Your task to perform on an android device: add a contact in the contacts app Image 0: 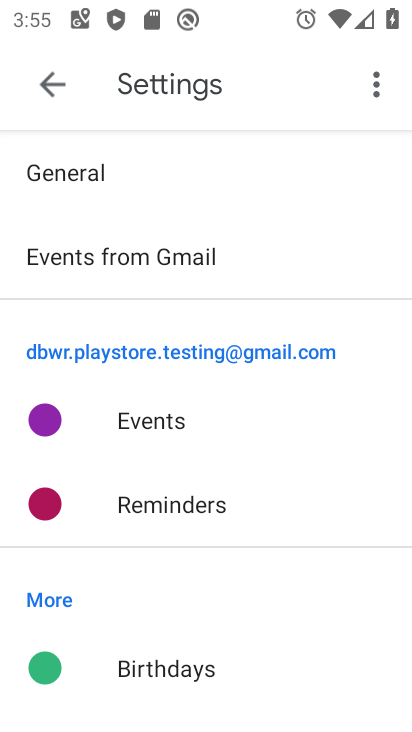
Step 0: press home button
Your task to perform on an android device: add a contact in the contacts app Image 1: 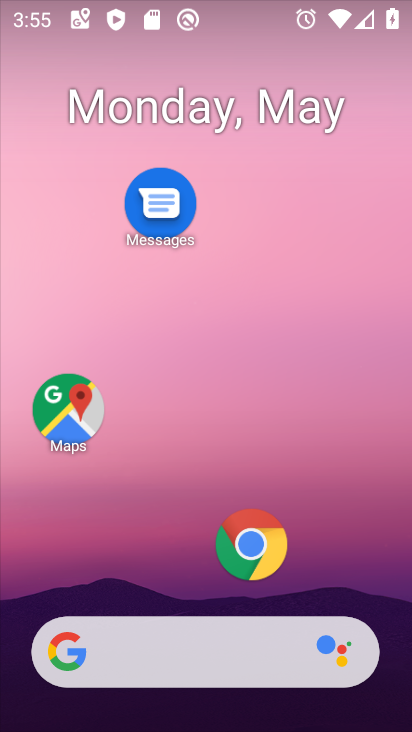
Step 1: drag from (190, 576) to (202, 149)
Your task to perform on an android device: add a contact in the contacts app Image 2: 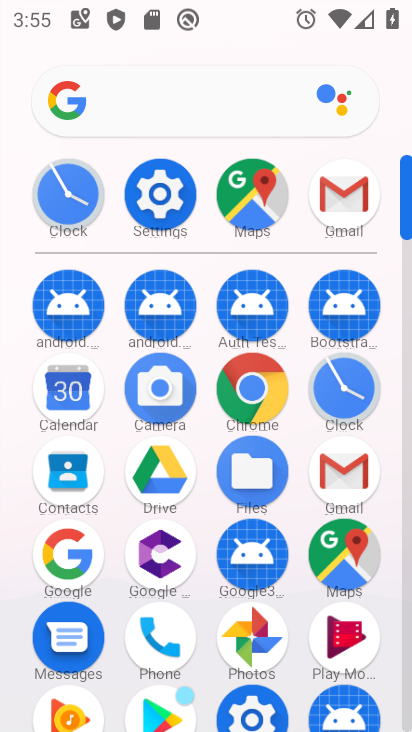
Step 2: click (69, 469)
Your task to perform on an android device: add a contact in the contacts app Image 3: 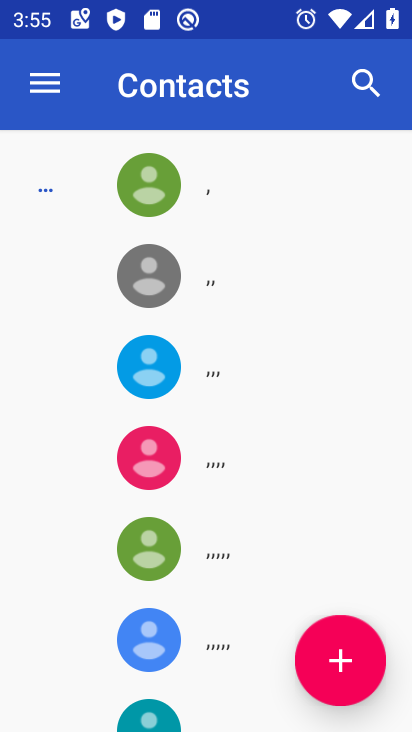
Step 3: click (308, 677)
Your task to perform on an android device: add a contact in the contacts app Image 4: 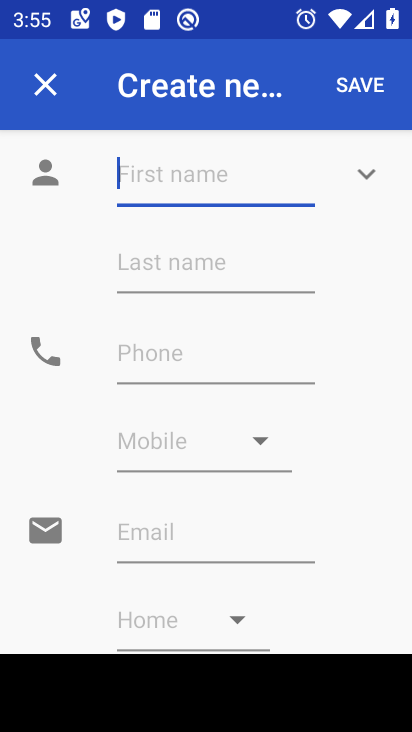
Step 4: type "fdbfdb"
Your task to perform on an android device: add a contact in the contacts app Image 5: 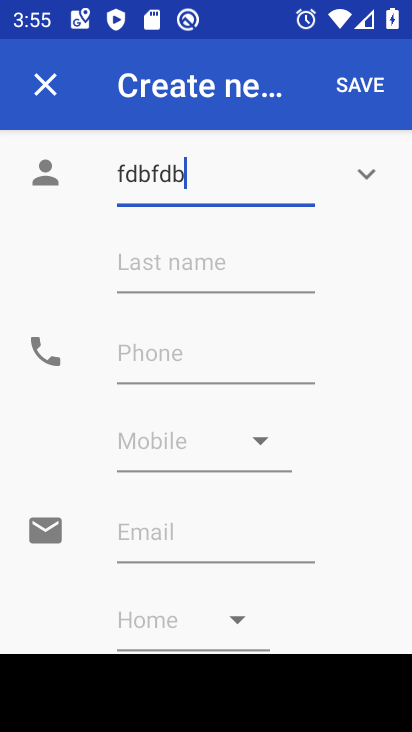
Step 5: click (228, 349)
Your task to perform on an android device: add a contact in the contacts app Image 6: 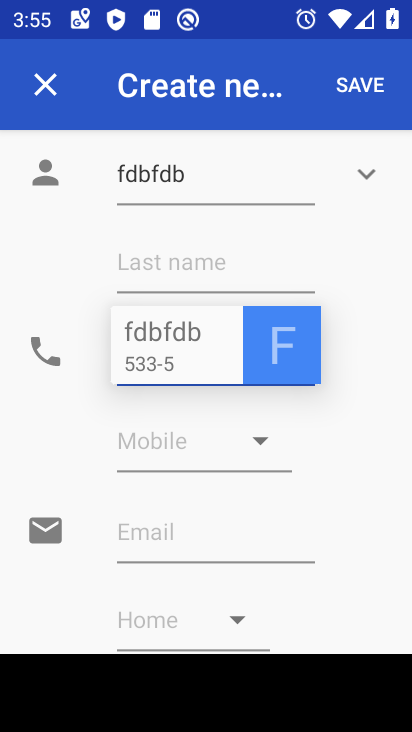
Step 6: click (100, 430)
Your task to perform on an android device: add a contact in the contacts app Image 7: 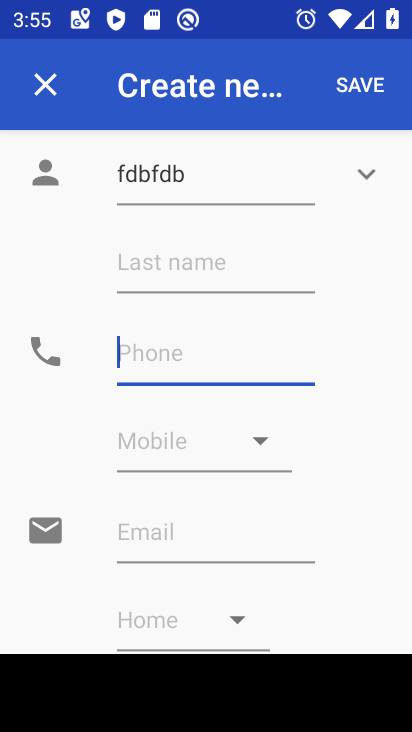
Step 7: click (135, 441)
Your task to perform on an android device: add a contact in the contacts app Image 8: 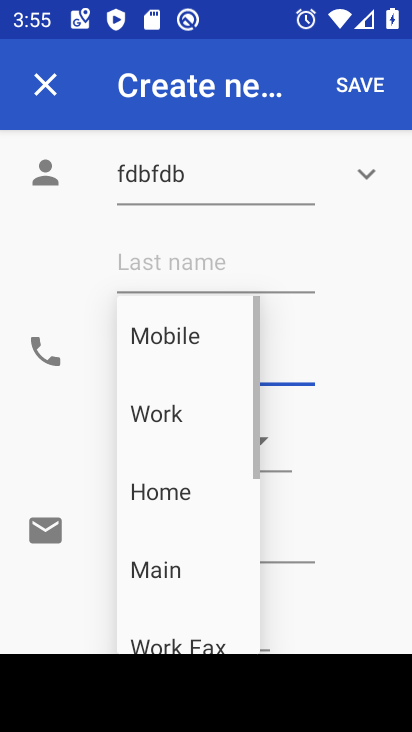
Step 8: click (160, 368)
Your task to perform on an android device: add a contact in the contacts app Image 9: 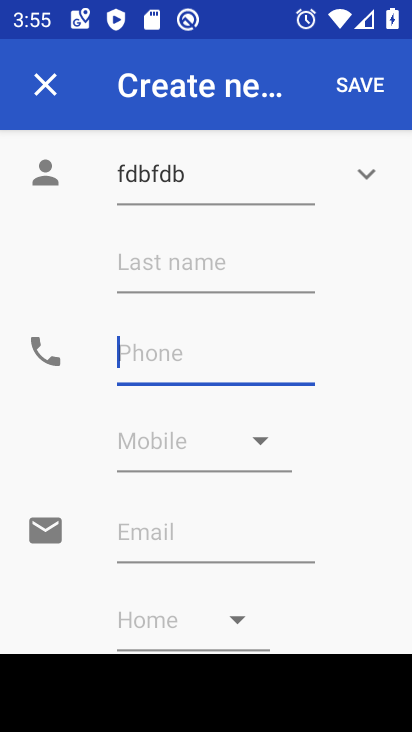
Step 9: type "9577665756"
Your task to perform on an android device: add a contact in the contacts app Image 10: 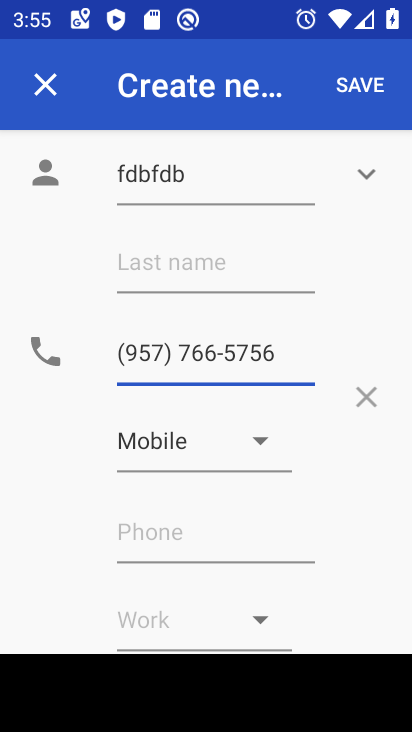
Step 10: click (347, 94)
Your task to perform on an android device: add a contact in the contacts app Image 11: 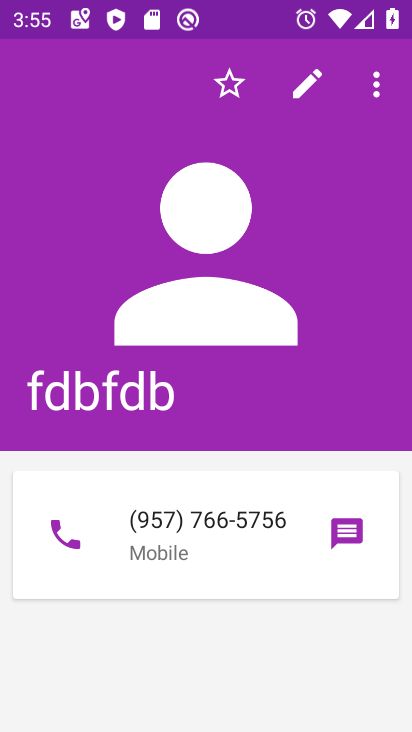
Step 11: task complete